Your task to perform on an android device: move a message to another label in the gmail app Image 0: 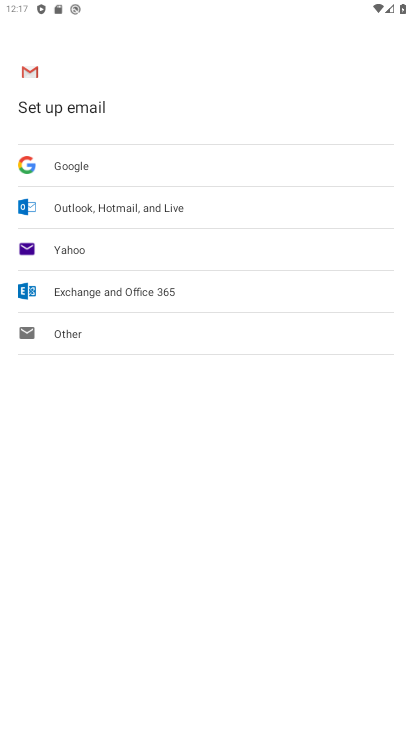
Step 0: press home button
Your task to perform on an android device: move a message to another label in the gmail app Image 1: 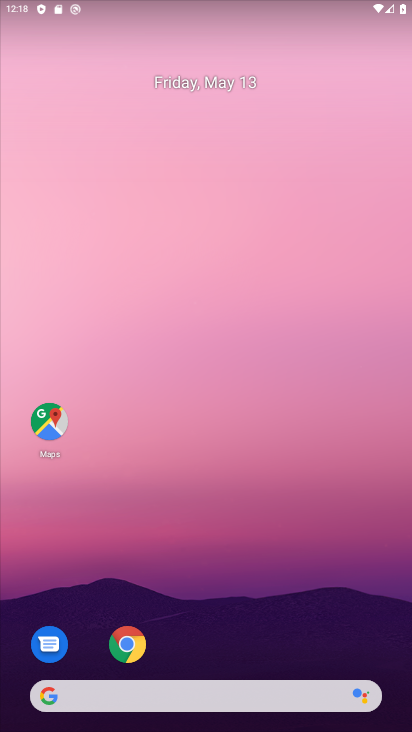
Step 1: drag from (288, 651) to (274, 110)
Your task to perform on an android device: move a message to another label in the gmail app Image 2: 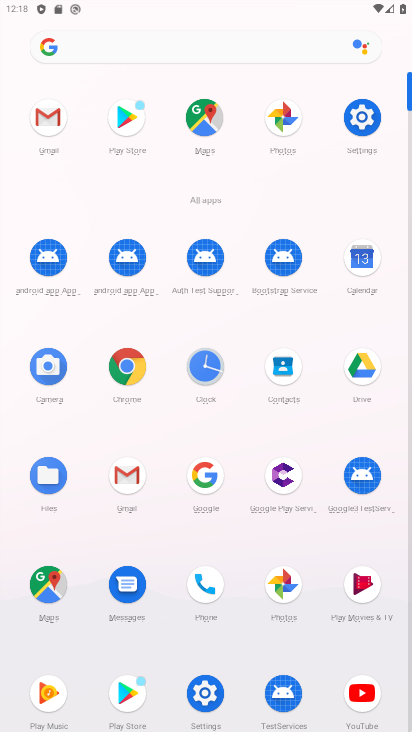
Step 2: click (124, 479)
Your task to perform on an android device: move a message to another label in the gmail app Image 3: 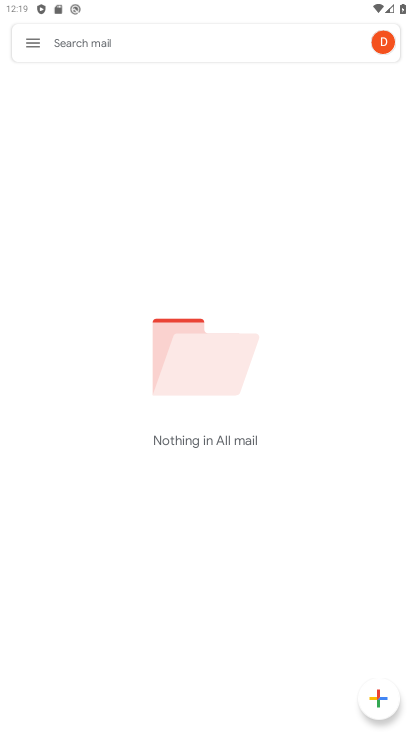
Step 3: task complete